Your task to perform on an android device: Go to privacy settings Image 0: 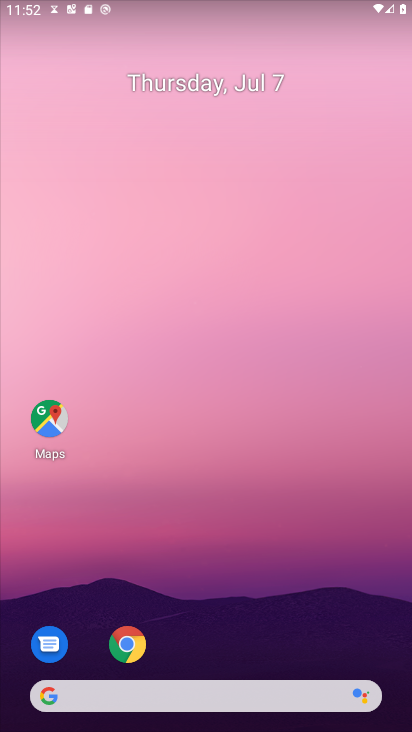
Step 0: press home button
Your task to perform on an android device: Go to privacy settings Image 1: 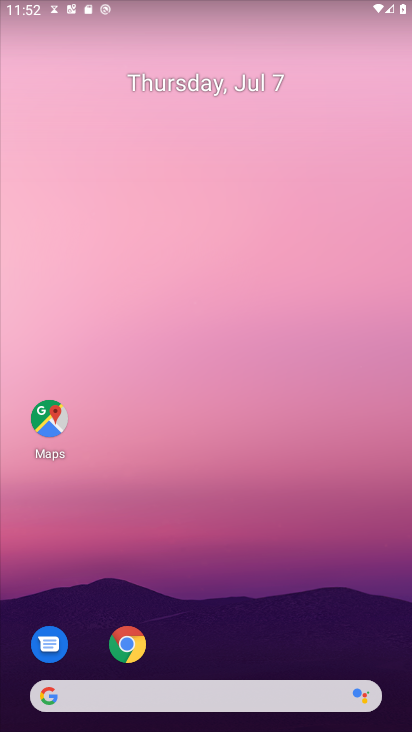
Step 1: drag from (291, 583) to (306, 95)
Your task to perform on an android device: Go to privacy settings Image 2: 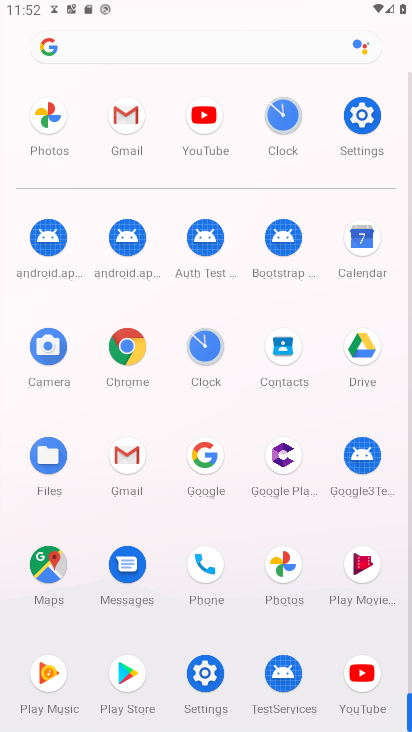
Step 2: click (366, 122)
Your task to perform on an android device: Go to privacy settings Image 3: 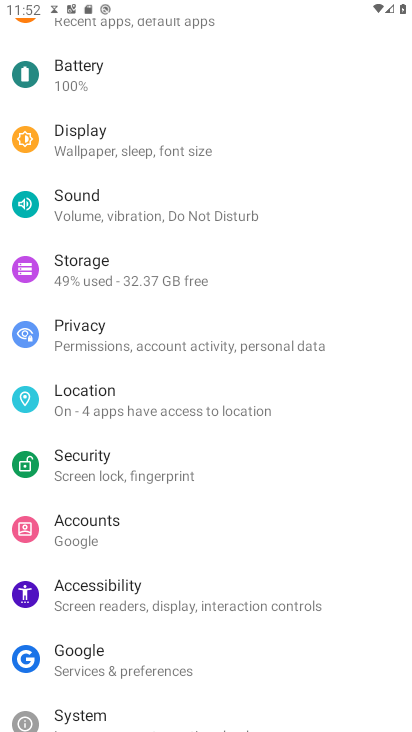
Step 3: click (100, 339)
Your task to perform on an android device: Go to privacy settings Image 4: 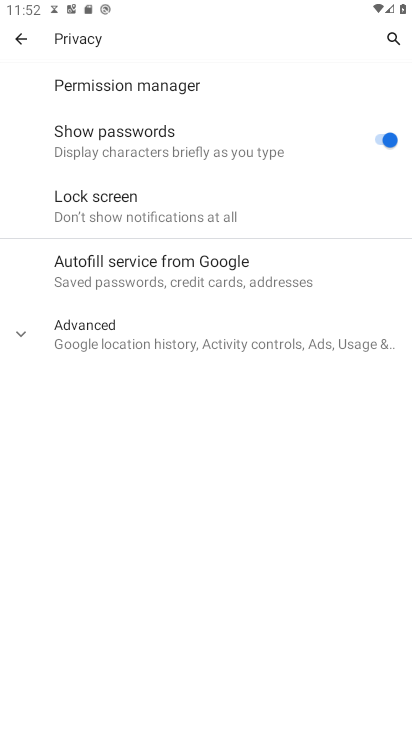
Step 4: task complete